Your task to perform on an android device: turn on priority inbox in the gmail app Image 0: 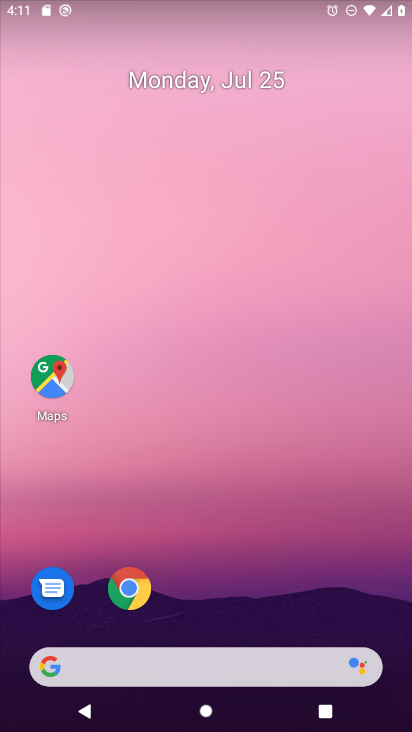
Step 0: press home button
Your task to perform on an android device: turn on priority inbox in the gmail app Image 1: 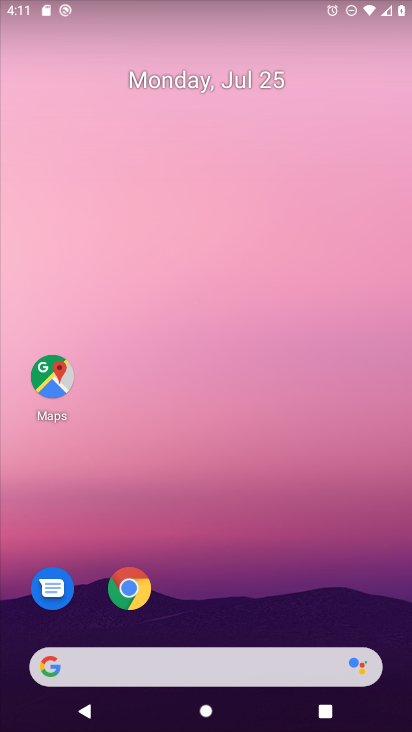
Step 1: drag from (240, 710) to (249, 98)
Your task to perform on an android device: turn on priority inbox in the gmail app Image 2: 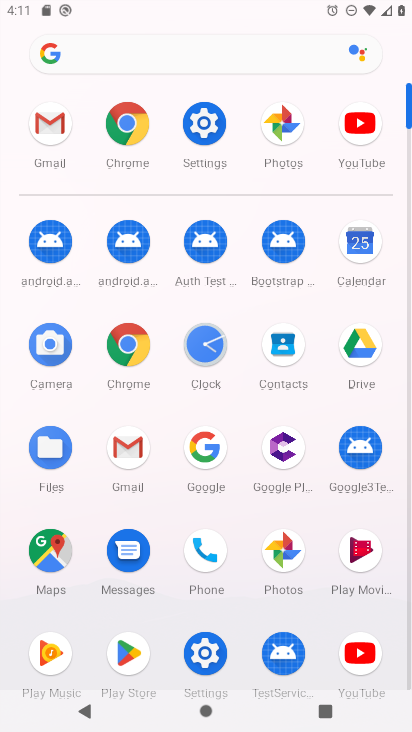
Step 2: click (127, 448)
Your task to perform on an android device: turn on priority inbox in the gmail app Image 3: 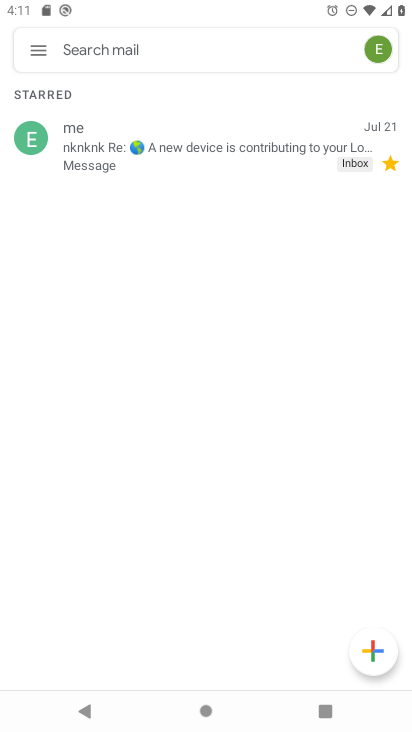
Step 3: click (28, 52)
Your task to perform on an android device: turn on priority inbox in the gmail app Image 4: 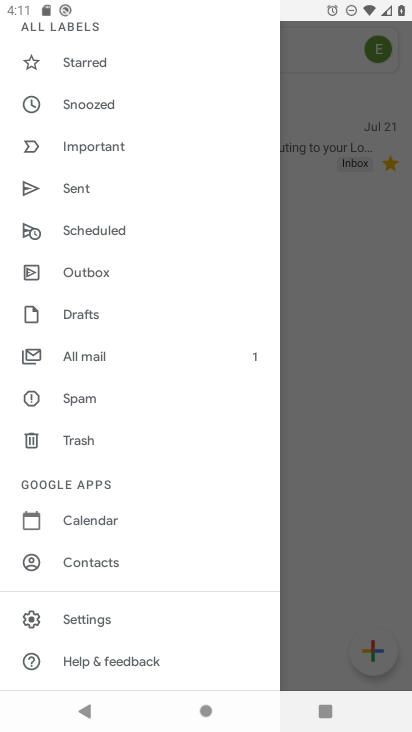
Step 4: click (96, 617)
Your task to perform on an android device: turn on priority inbox in the gmail app Image 5: 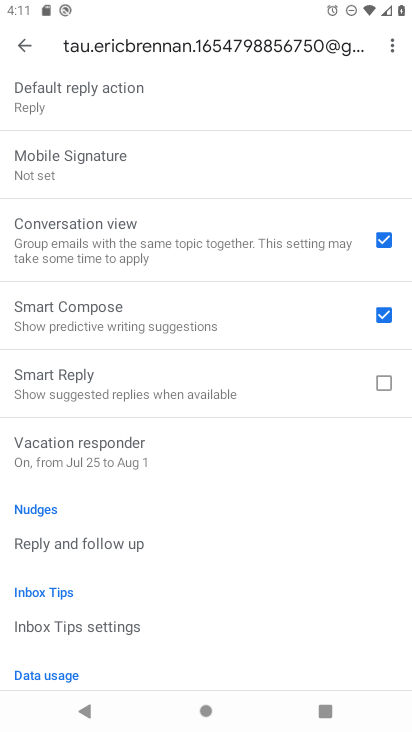
Step 5: drag from (196, 122) to (174, 607)
Your task to perform on an android device: turn on priority inbox in the gmail app Image 6: 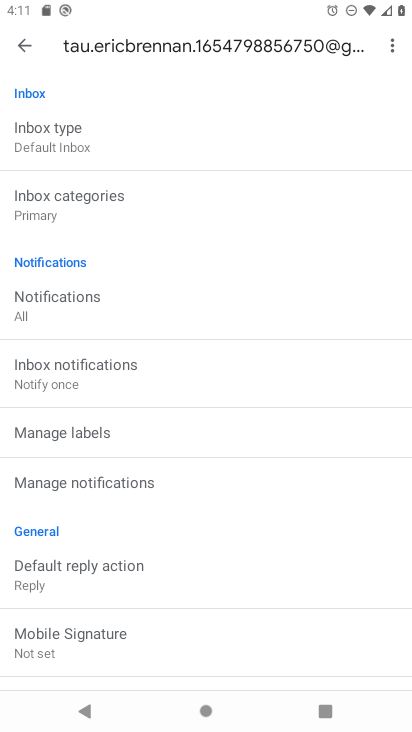
Step 6: drag from (253, 92) to (226, 540)
Your task to perform on an android device: turn on priority inbox in the gmail app Image 7: 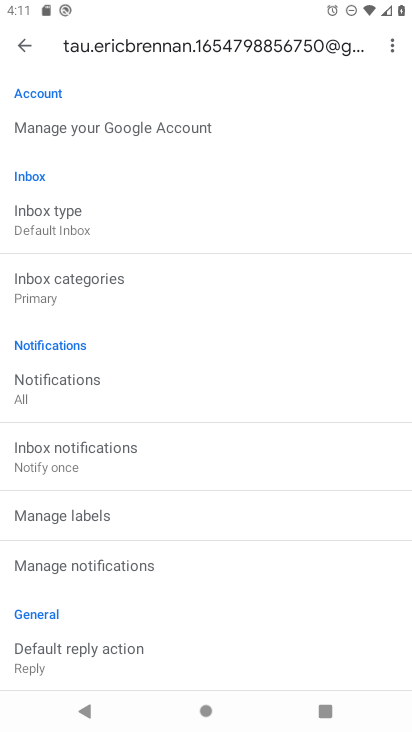
Step 7: click (48, 221)
Your task to perform on an android device: turn on priority inbox in the gmail app Image 8: 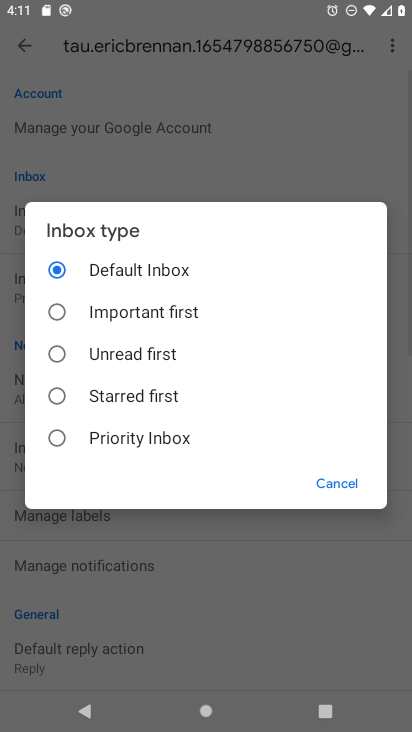
Step 8: click (54, 440)
Your task to perform on an android device: turn on priority inbox in the gmail app Image 9: 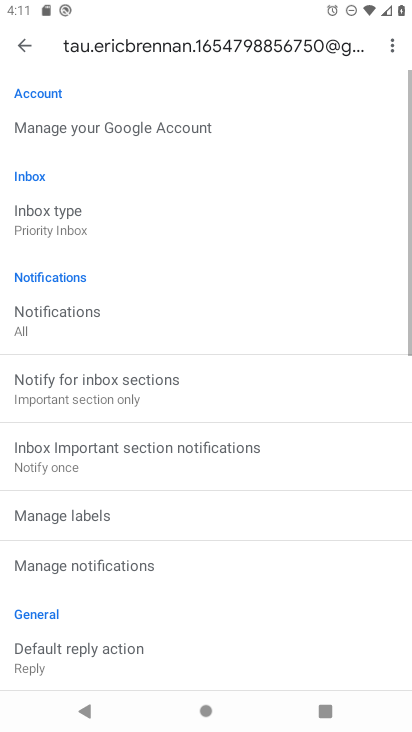
Step 9: task complete